Your task to perform on an android device: see sites visited before in the chrome app Image 0: 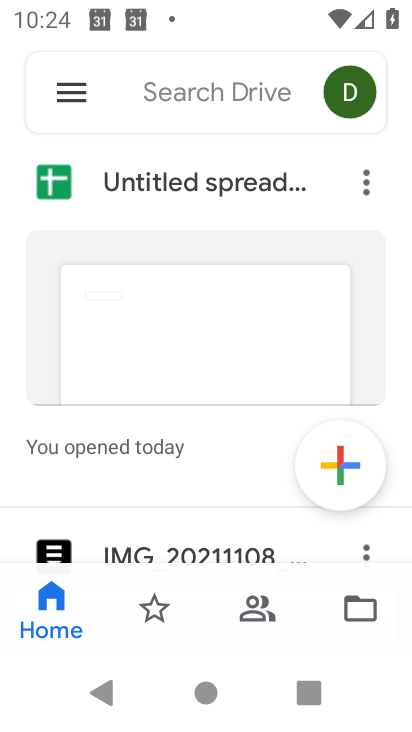
Step 0: press home button
Your task to perform on an android device: see sites visited before in the chrome app Image 1: 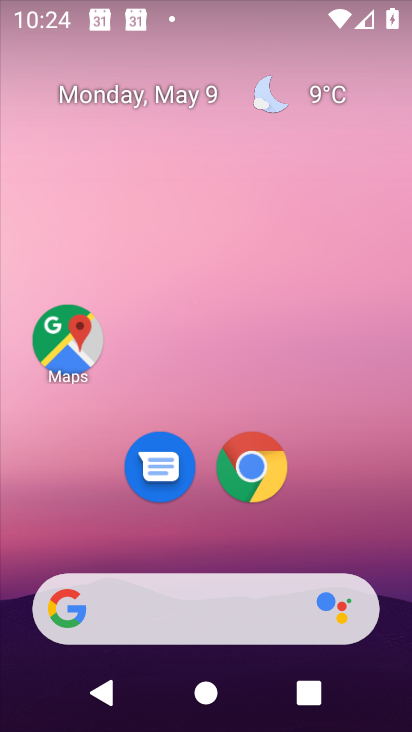
Step 1: click (256, 484)
Your task to perform on an android device: see sites visited before in the chrome app Image 2: 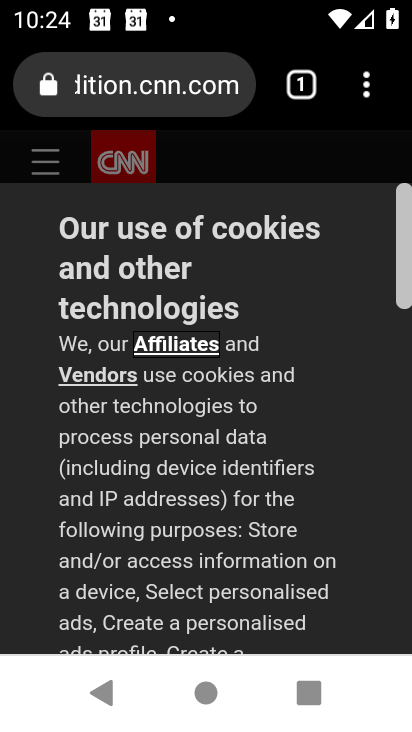
Step 2: click (370, 91)
Your task to perform on an android device: see sites visited before in the chrome app Image 3: 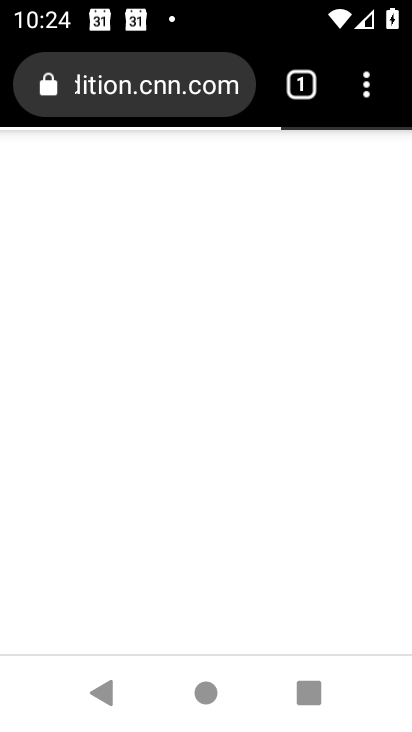
Step 3: task complete